Your task to perform on an android device: make emails show in primary in the gmail app Image 0: 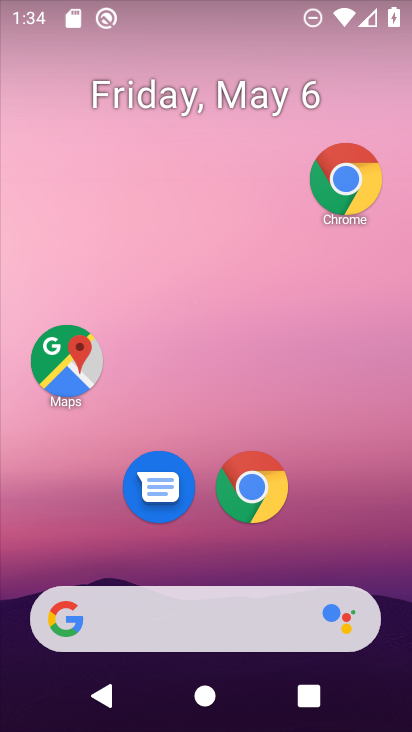
Step 0: drag from (332, 530) to (269, 18)
Your task to perform on an android device: make emails show in primary in the gmail app Image 1: 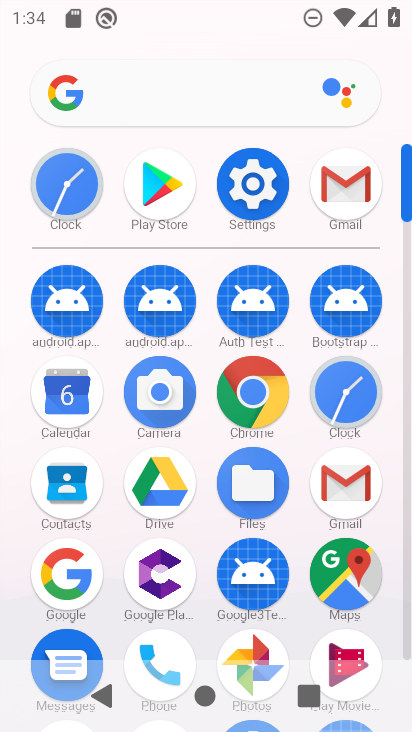
Step 1: click (239, 174)
Your task to perform on an android device: make emails show in primary in the gmail app Image 2: 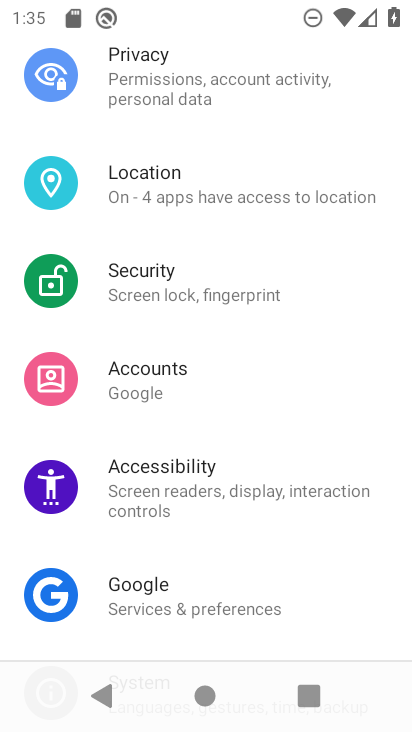
Step 2: drag from (216, 566) to (212, 275)
Your task to perform on an android device: make emails show in primary in the gmail app Image 3: 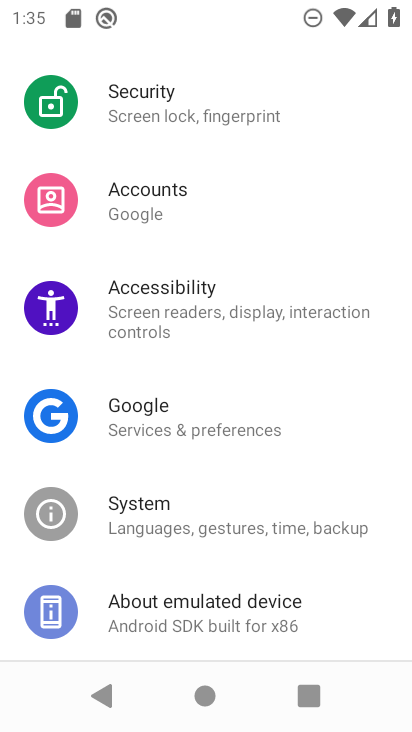
Step 3: drag from (192, 536) to (301, 651)
Your task to perform on an android device: make emails show in primary in the gmail app Image 4: 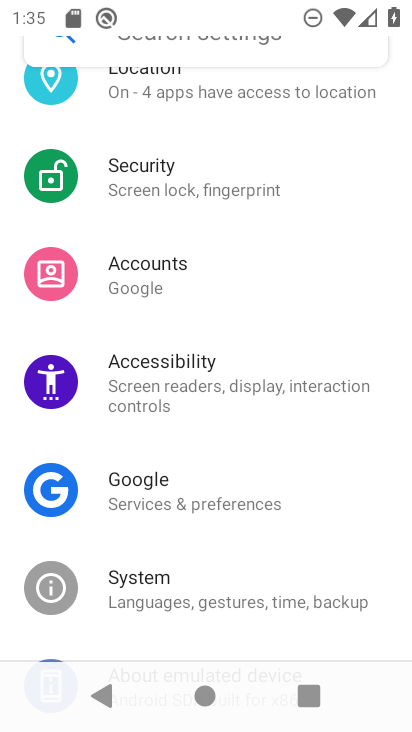
Step 4: drag from (256, 261) to (407, 681)
Your task to perform on an android device: make emails show in primary in the gmail app Image 5: 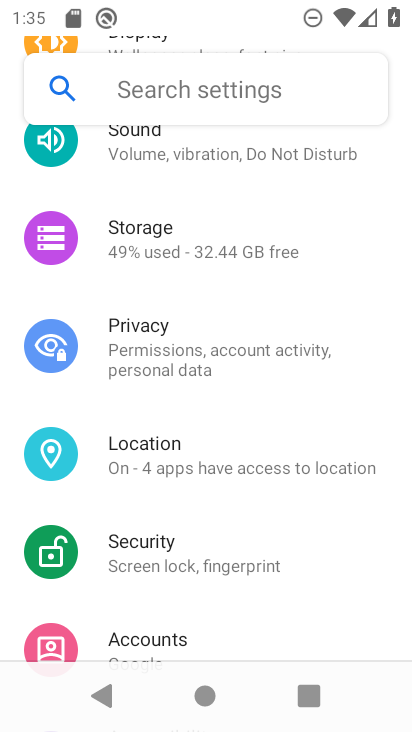
Step 5: press home button
Your task to perform on an android device: make emails show in primary in the gmail app Image 6: 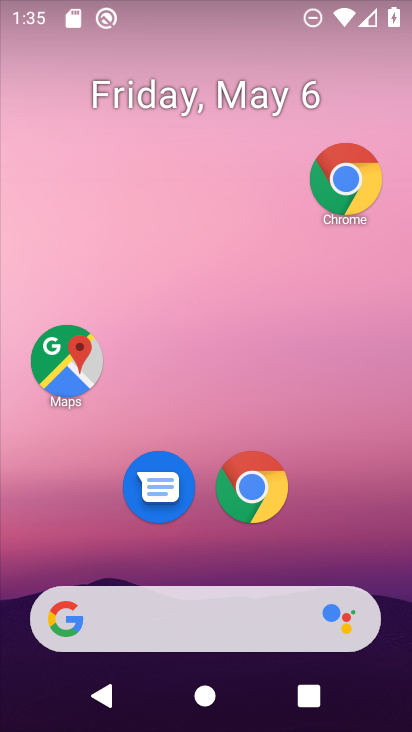
Step 6: drag from (322, 552) to (296, 283)
Your task to perform on an android device: make emails show in primary in the gmail app Image 7: 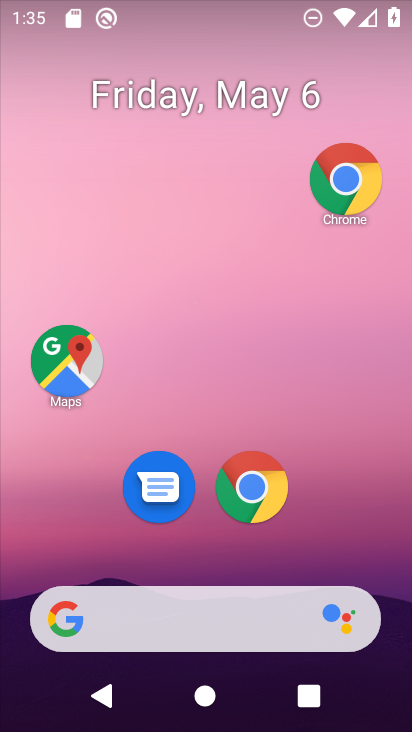
Step 7: drag from (321, 523) to (283, 142)
Your task to perform on an android device: make emails show in primary in the gmail app Image 8: 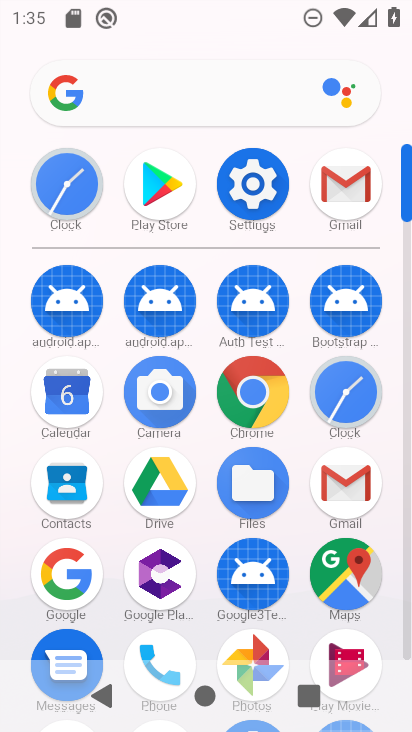
Step 8: click (242, 213)
Your task to perform on an android device: make emails show in primary in the gmail app Image 9: 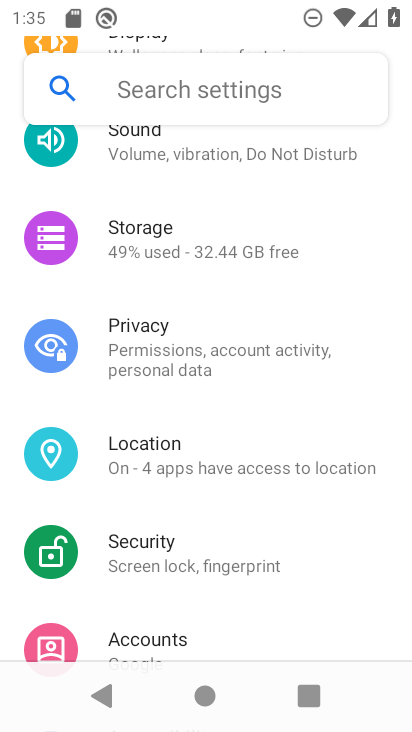
Step 9: drag from (205, 227) to (202, 712)
Your task to perform on an android device: make emails show in primary in the gmail app Image 10: 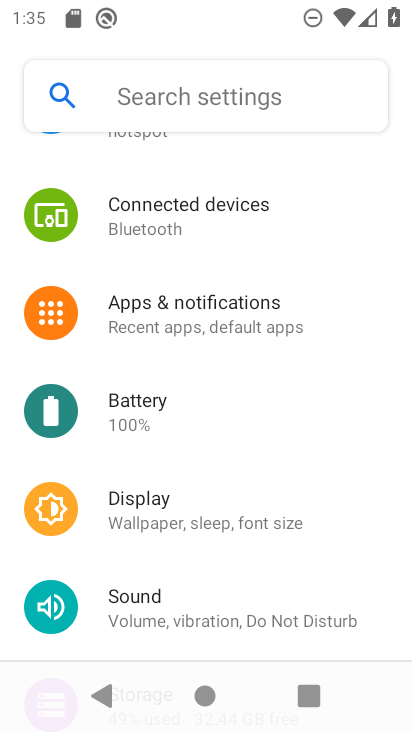
Step 10: press home button
Your task to perform on an android device: make emails show in primary in the gmail app Image 11: 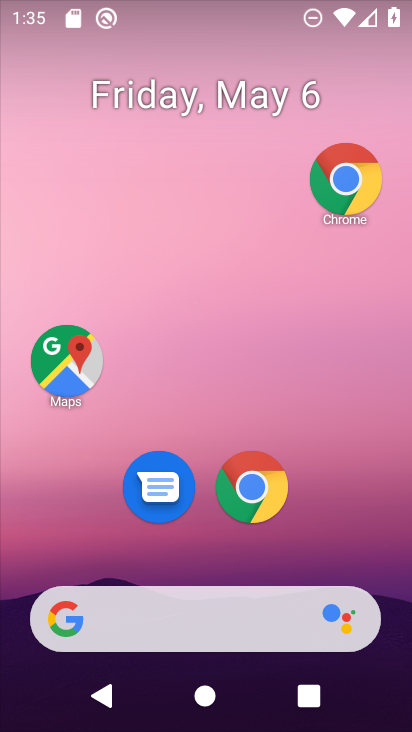
Step 11: drag from (372, 525) to (308, 244)
Your task to perform on an android device: make emails show in primary in the gmail app Image 12: 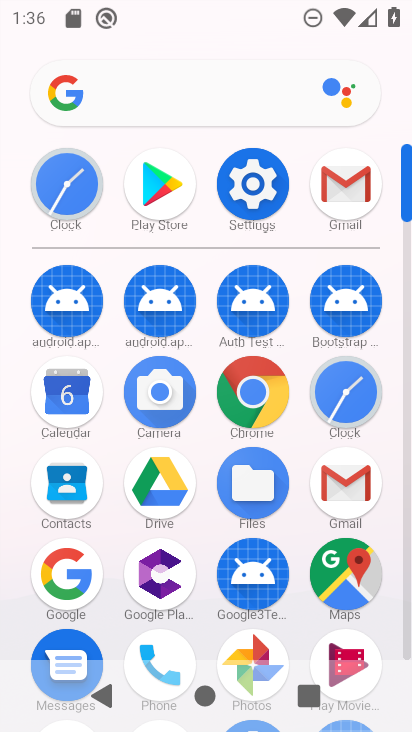
Step 12: click (330, 338)
Your task to perform on an android device: make emails show in primary in the gmail app Image 13: 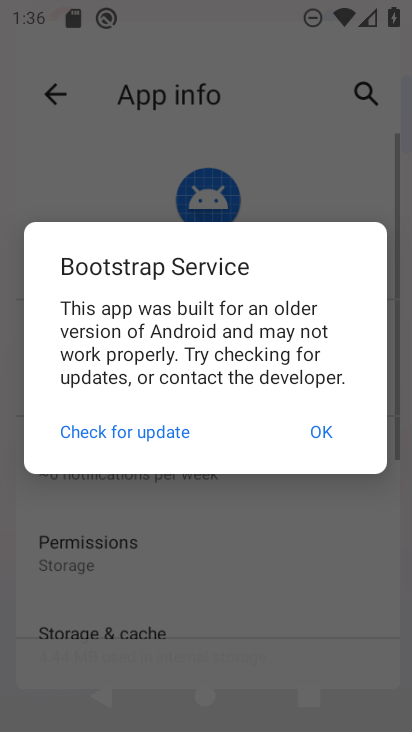
Step 13: click (335, 230)
Your task to perform on an android device: make emails show in primary in the gmail app Image 14: 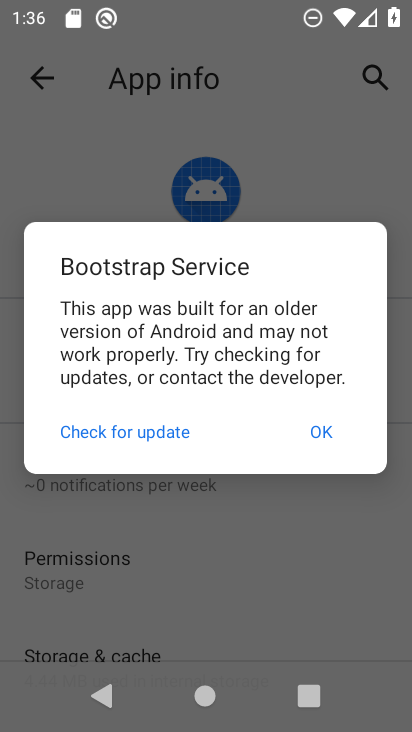
Step 14: task complete